Your task to perform on an android device: turn off notifications in google photos Image 0: 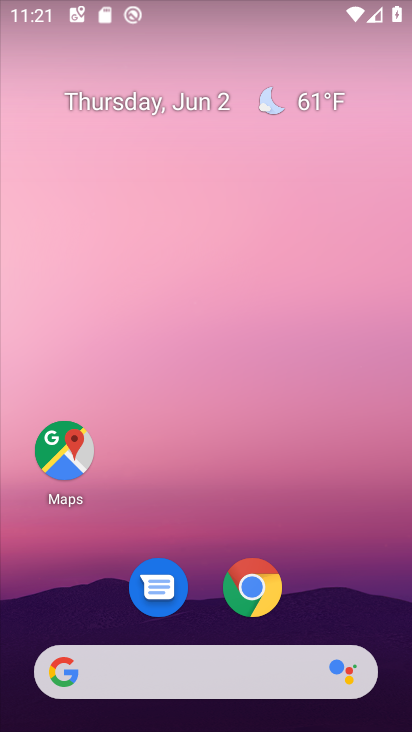
Step 0: drag from (268, 467) to (266, 0)
Your task to perform on an android device: turn off notifications in google photos Image 1: 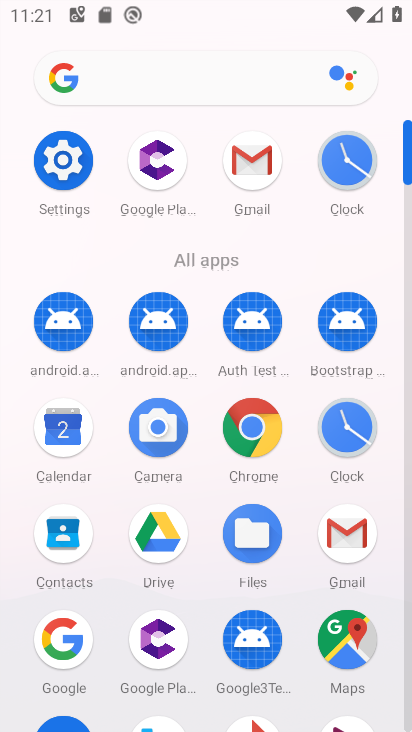
Step 1: click (63, 167)
Your task to perform on an android device: turn off notifications in google photos Image 2: 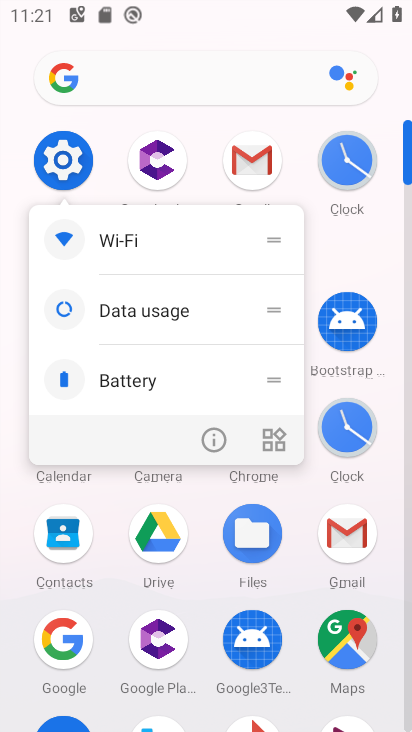
Step 2: click (63, 166)
Your task to perform on an android device: turn off notifications in google photos Image 3: 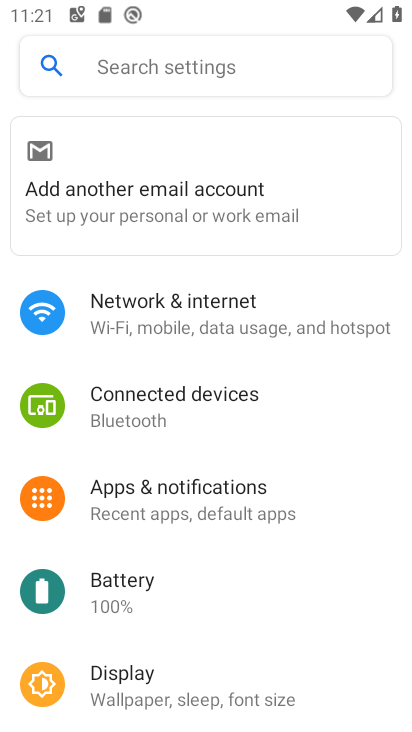
Step 3: click (238, 487)
Your task to perform on an android device: turn off notifications in google photos Image 4: 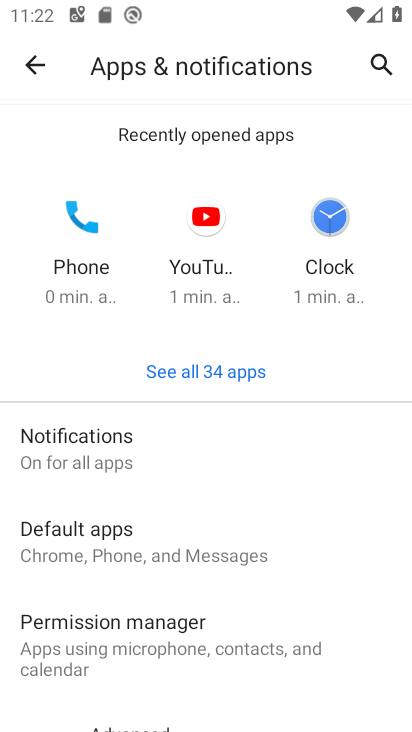
Step 4: click (263, 368)
Your task to perform on an android device: turn off notifications in google photos Image 5: 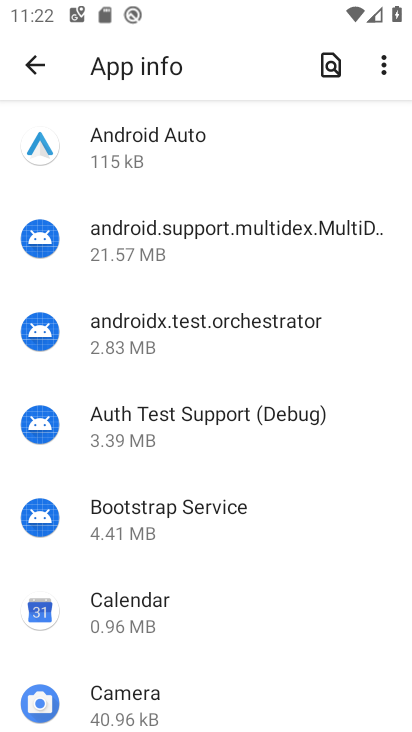
Step 5: drag from (264, 646) to (227, 12)
Your task to perform on an android device: turn off notifications in google photos Image 6: 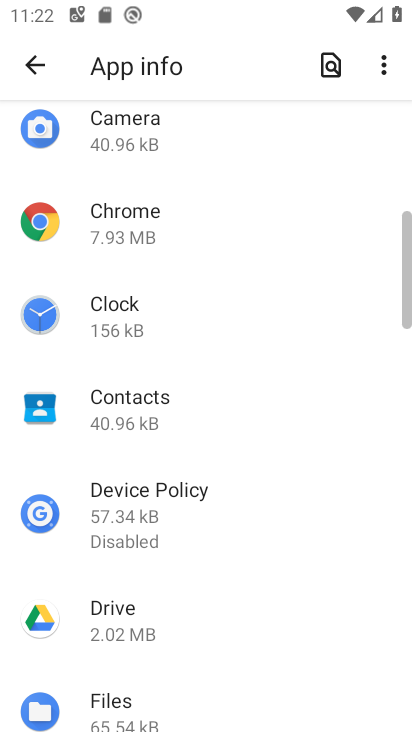
Step 6: drag from (238, 632) to (205, 8)
Your task to perform on an android device: turn off notifications in google photos Image 7: 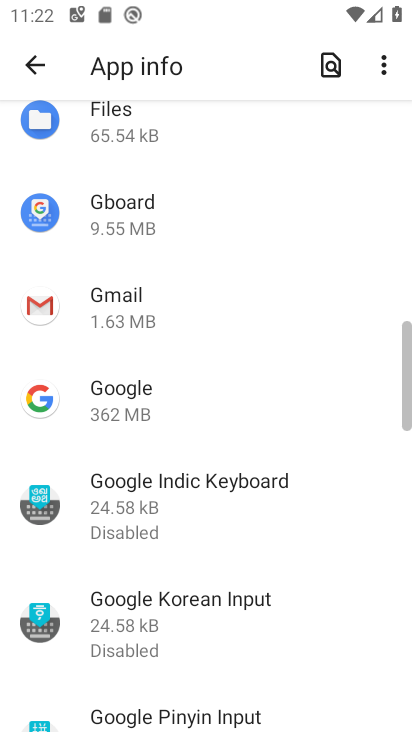
Step 7: drag from (237, 557) to (238, 2)
Your task to perform on an android device: turn off notifications in google photos Image 8: 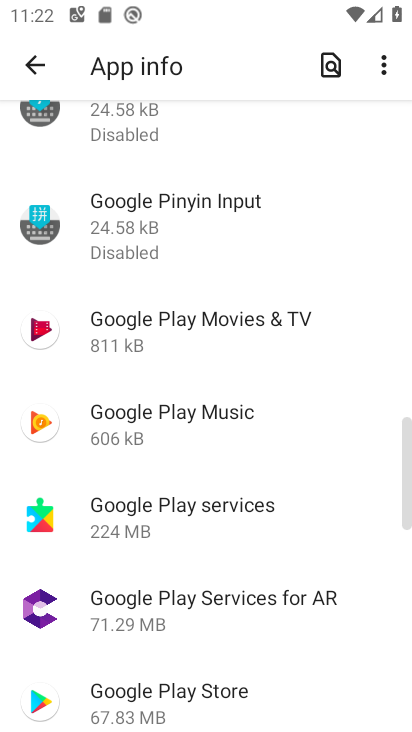
Step 8: drag from (218, 632) to (227, 0)
Your task to perform on an android device: turn off notifications in google photos Image 9: 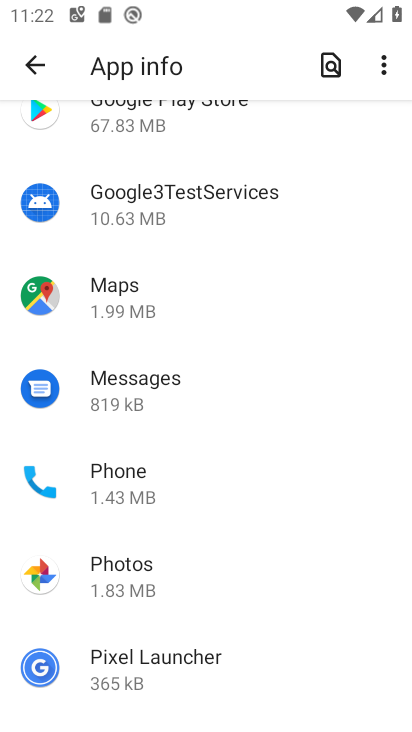
Step 9: click (142, 572)
Your task to perform on an android device: turn off notifications in google photos Image 10: 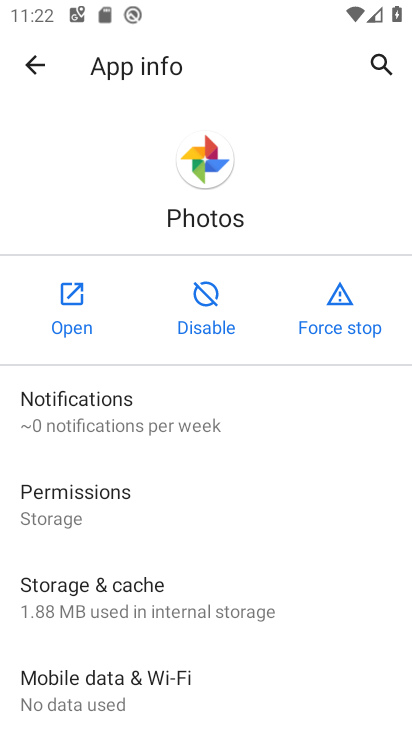
Step 10: click (175, 418)
Your task to perform on an android device: turn off notifications in google photos Image 11: 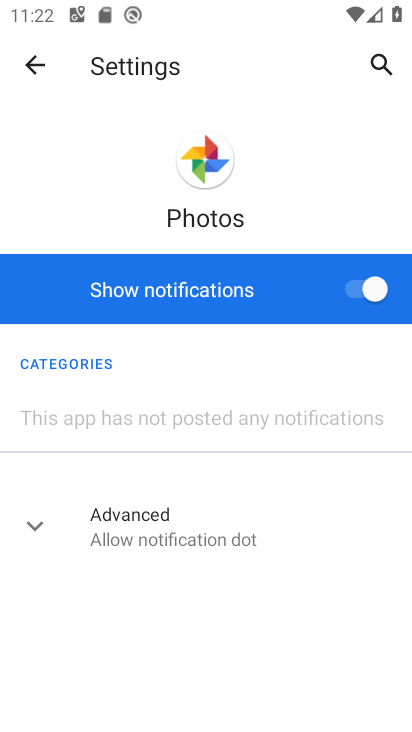
Step 11: click (352, 287)
Your task to perform on an android device: turn off notifications in google photos Image 12: 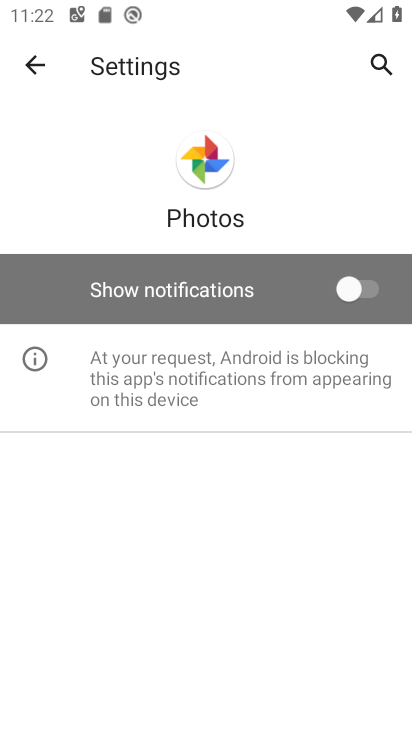
Step 12: task complete